Your task to perform on an android device: When is my next appointment? Image 0: 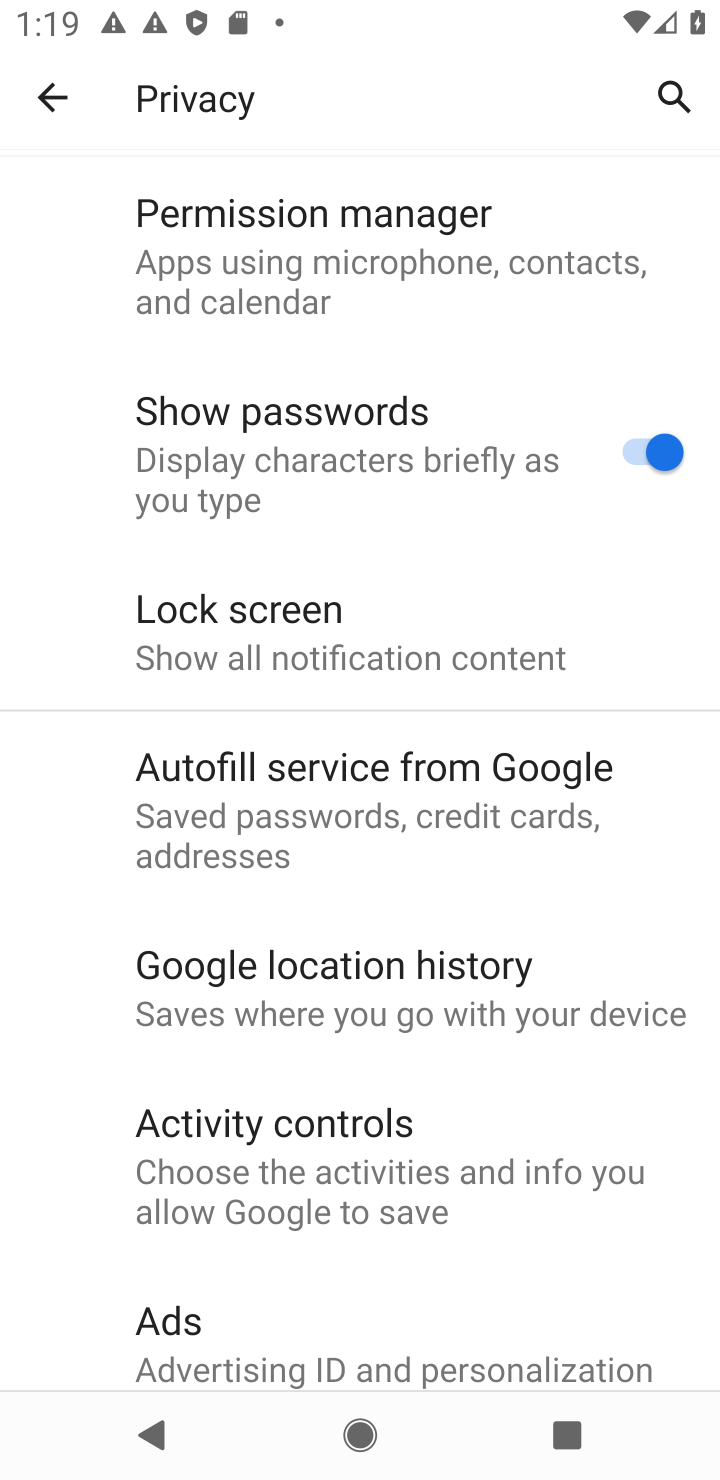
Step 0: press home button
Your task to perform on an android device: When is my next appointment? Image 1: 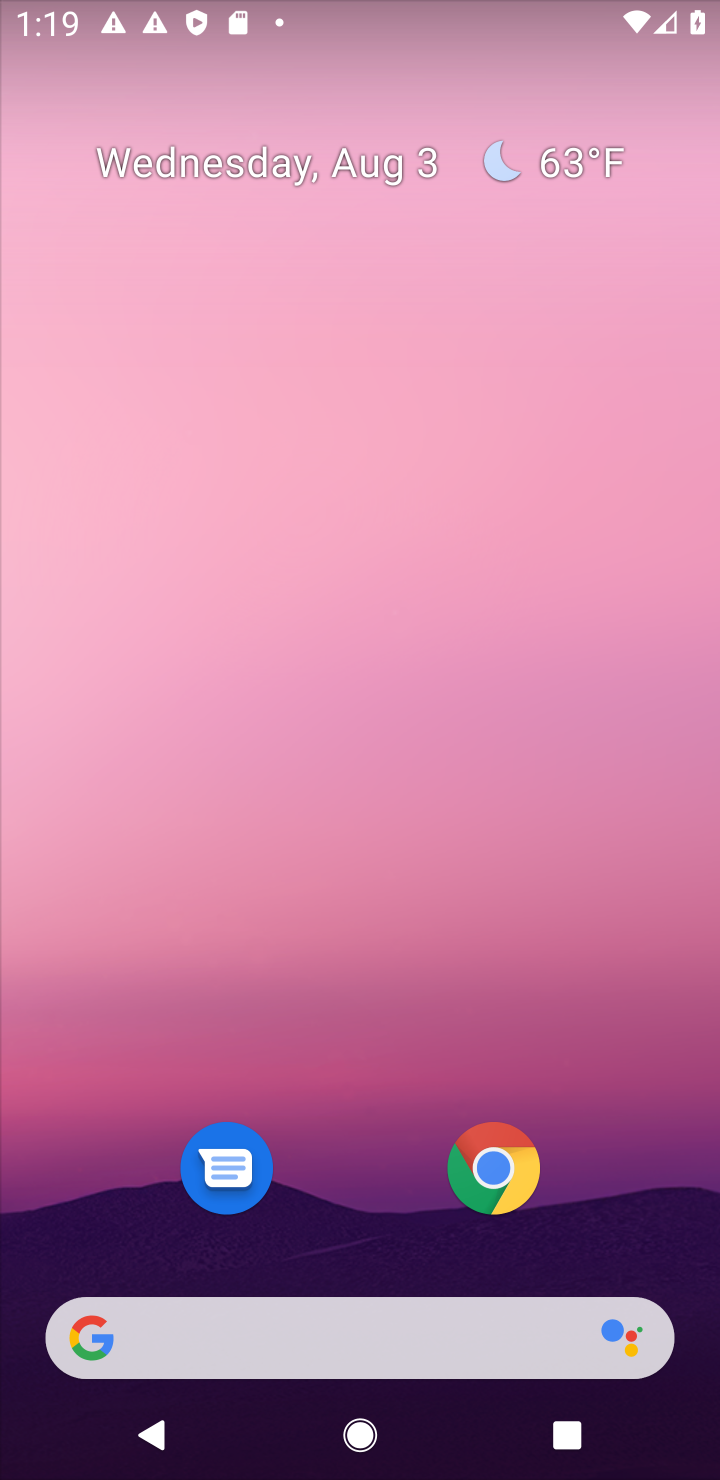
Step 1: drag from (665, 1241) to (534, 432)
Your task to perform on an android device: When is my next appointment? Image 2: 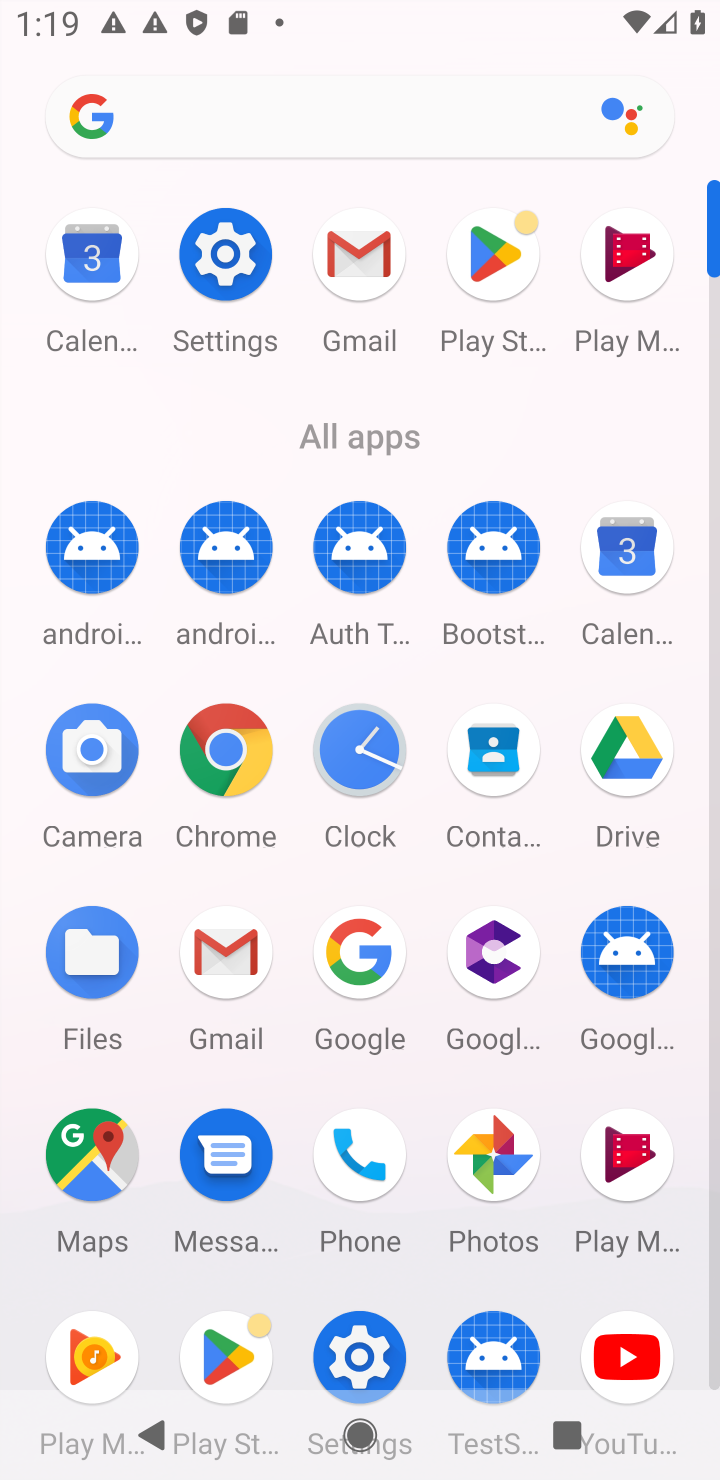
Step 2: click (633, 550)
Your task to perform on an android device: When is my next appointment? Image 3: 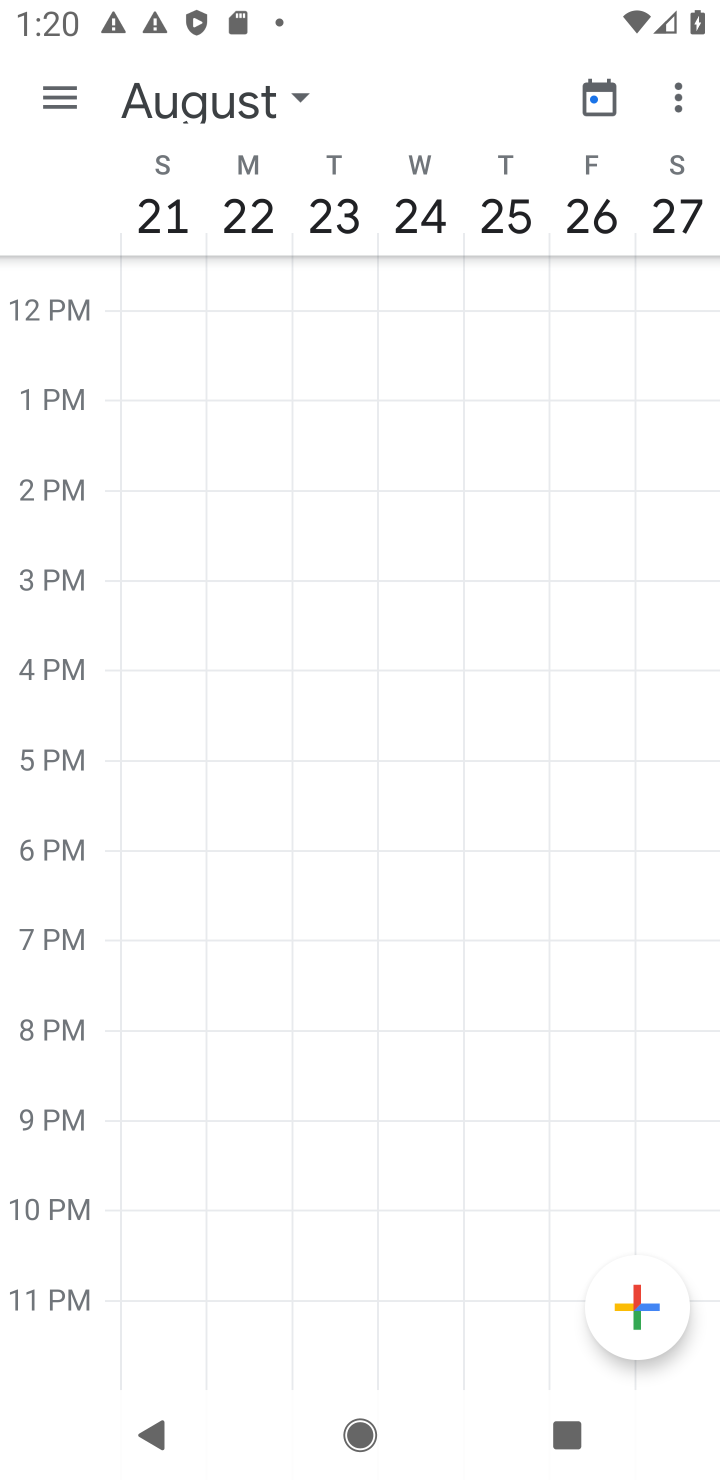
Step 3: click (63, 88)
Your task to perform on an android device: When is my next appointment? Image 4: 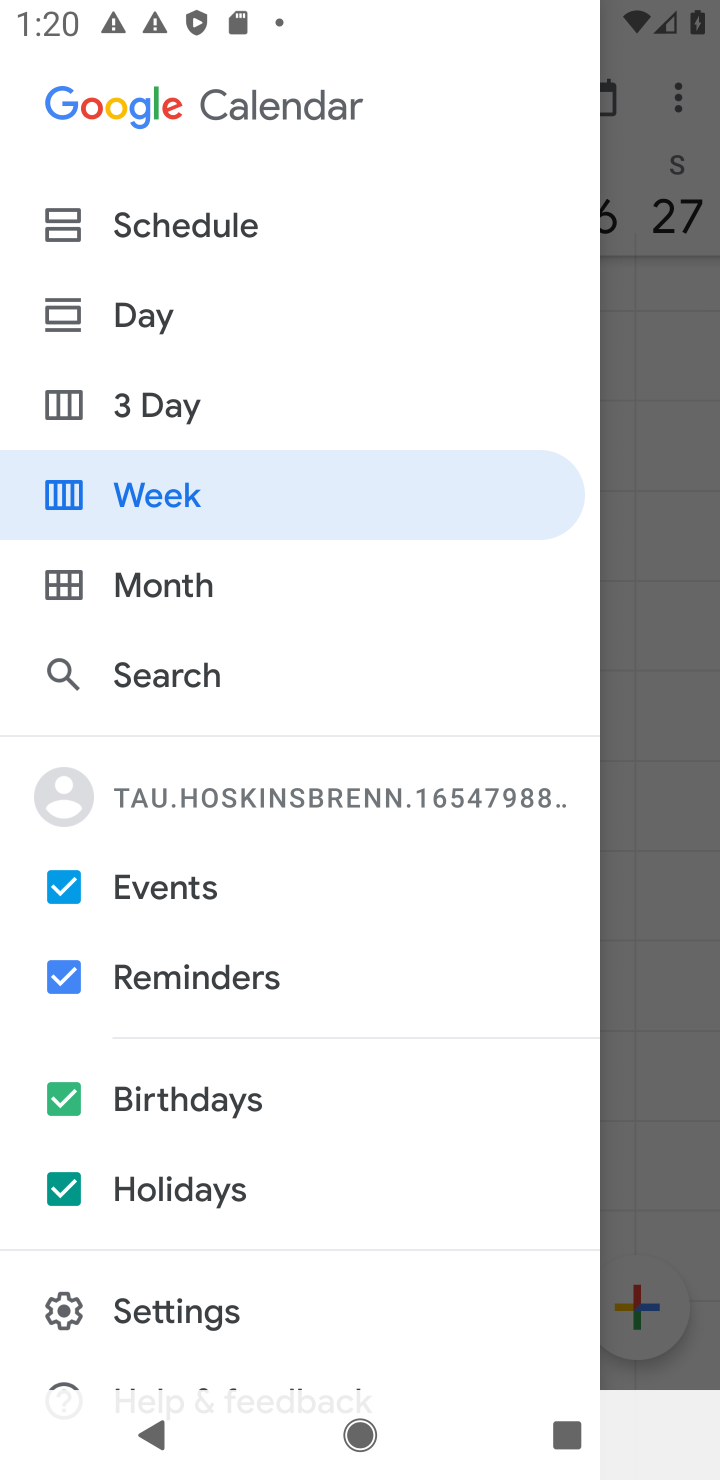
Step 4: click (151, 219)
Your task to perform on an android device: When is my next appointment? Image 5: 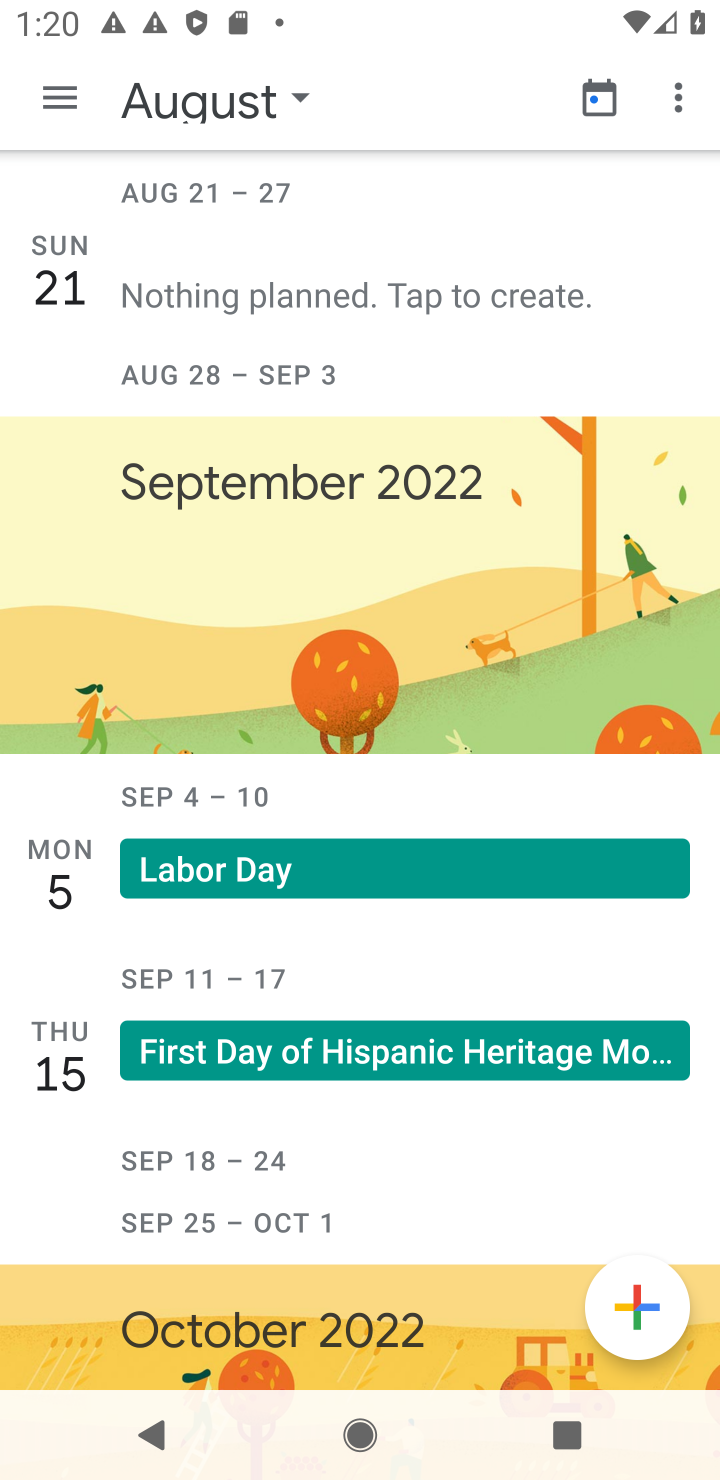
Step 5: task complete